Your task to perform on an android device: turn on javascript in the chrome app Image 0: 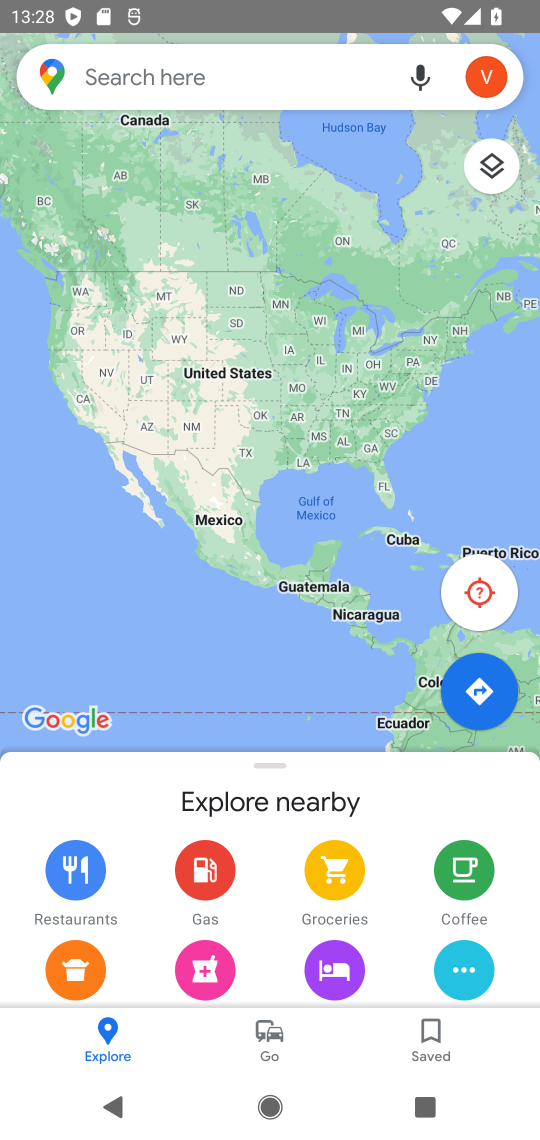
Step 0: press home button
Your task to perform on an android device: turn on javascript in the chrome app Image 1: 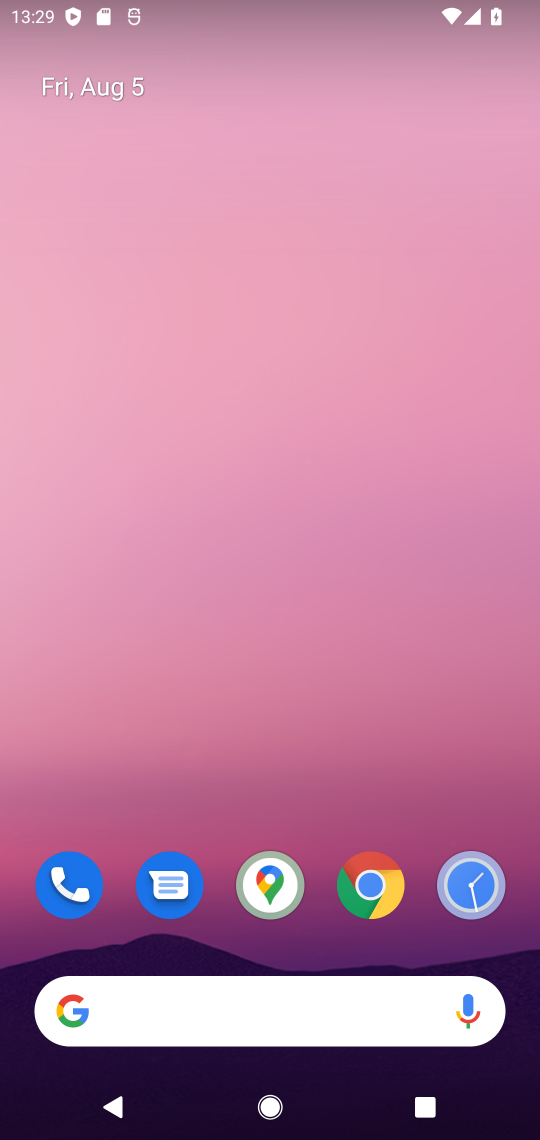
Step 1: click (366, 876)
Your task to perform on an android device: turn on javascript in the chrome app Image 2: 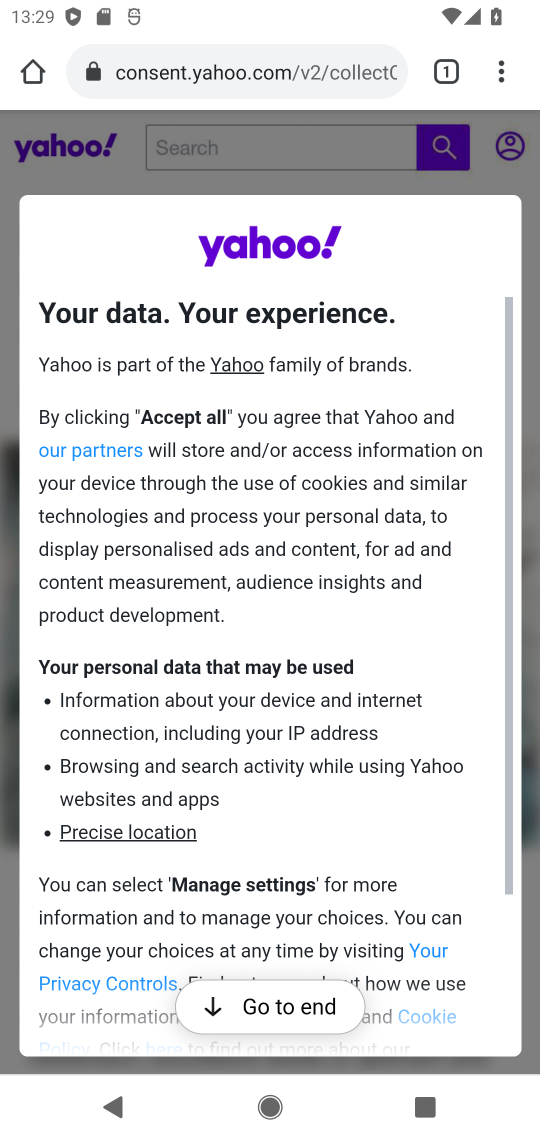
Step 2: click (502, 66)
Your task to perform on an android device: turn on javascript in the chrome app Image 3: 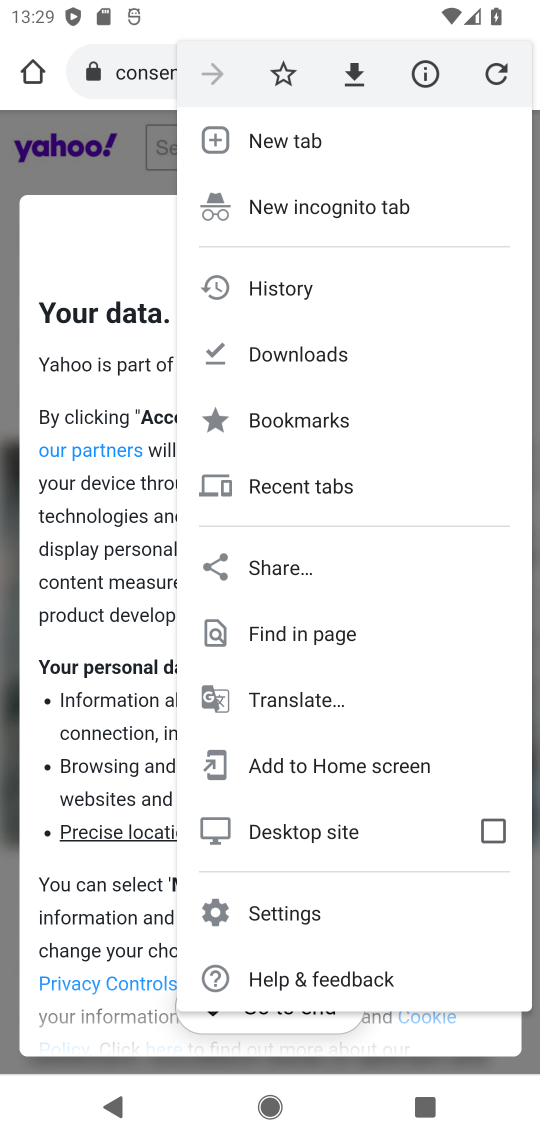
Step 3: click (278, 911)
Your task to perform on an android device: turn on javascript in the chrome app Image 4: 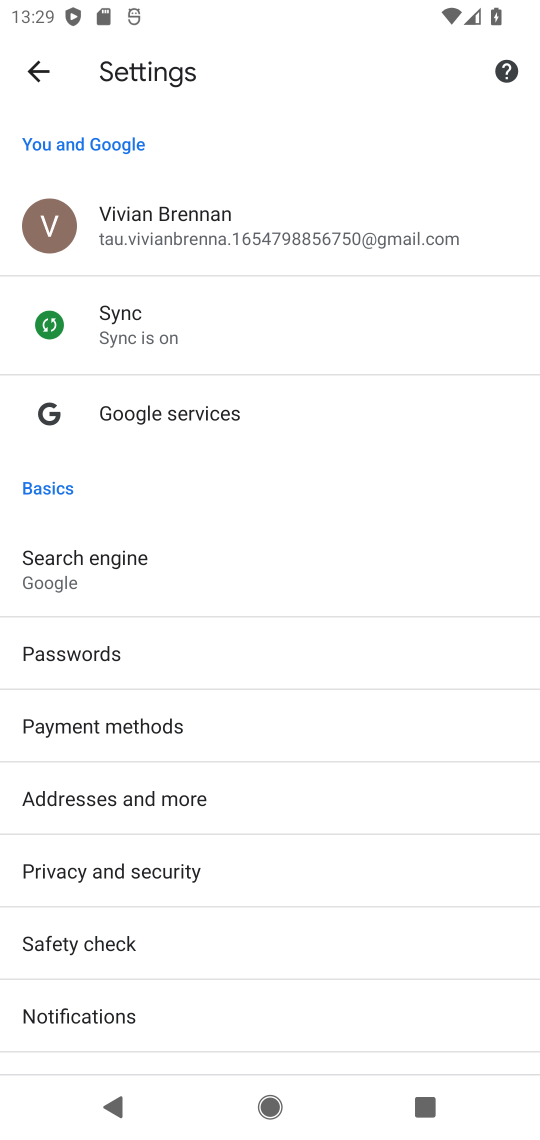
Step 4: click (149, 495)
Your task to perform on an android device: turn on javascript in the chrome app Image 5: 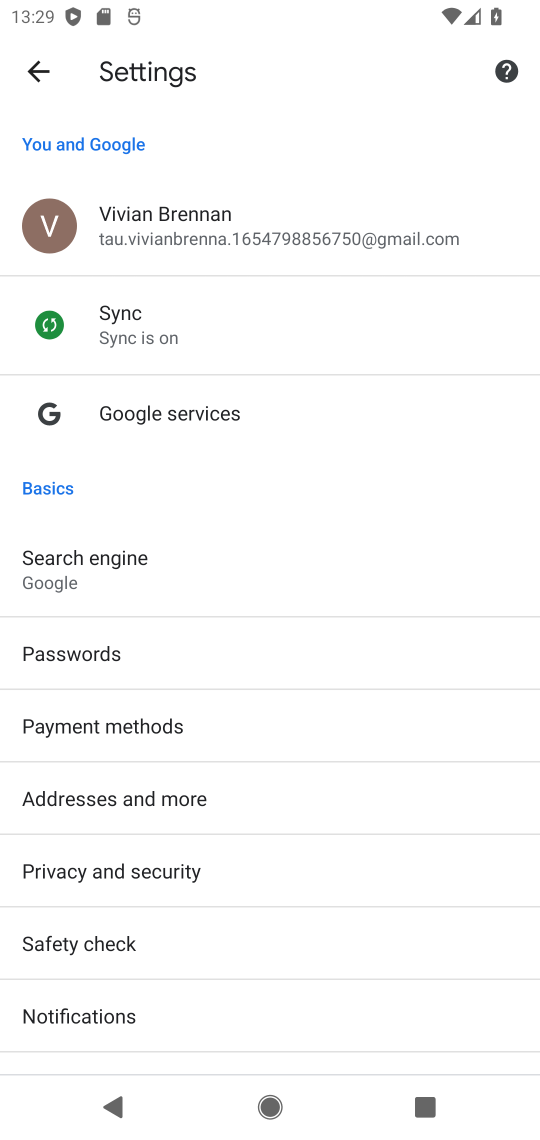
Step 5: drag from (204, 1016) to (204, 376)
Your task to perform on an android device: turn on javascript in the chrome app Image 6: 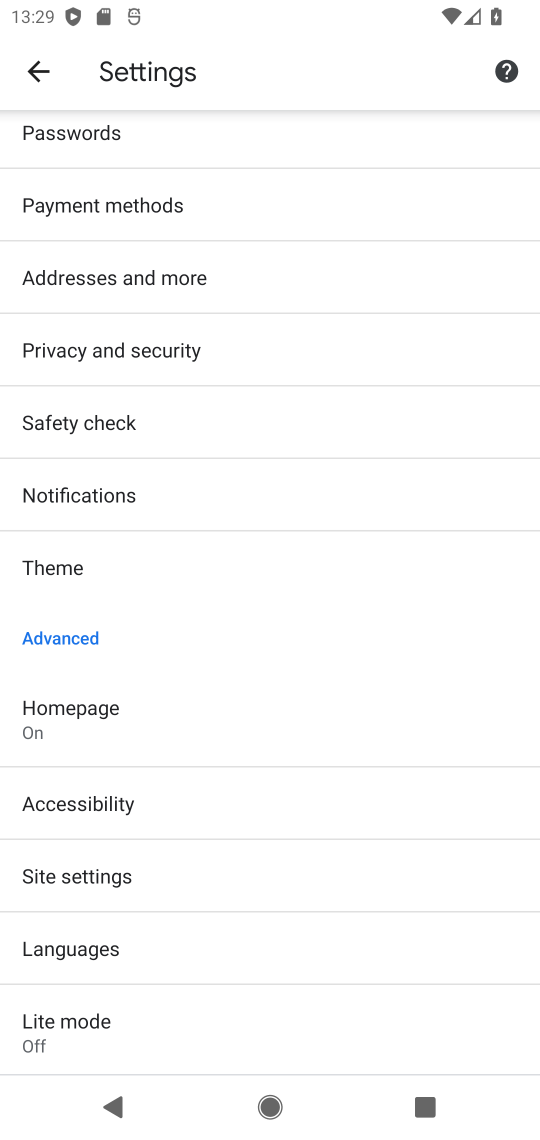
Step 6: click (105, 876)
Your task to perform on an android device: turn on javascript in the chrome app Image 7: 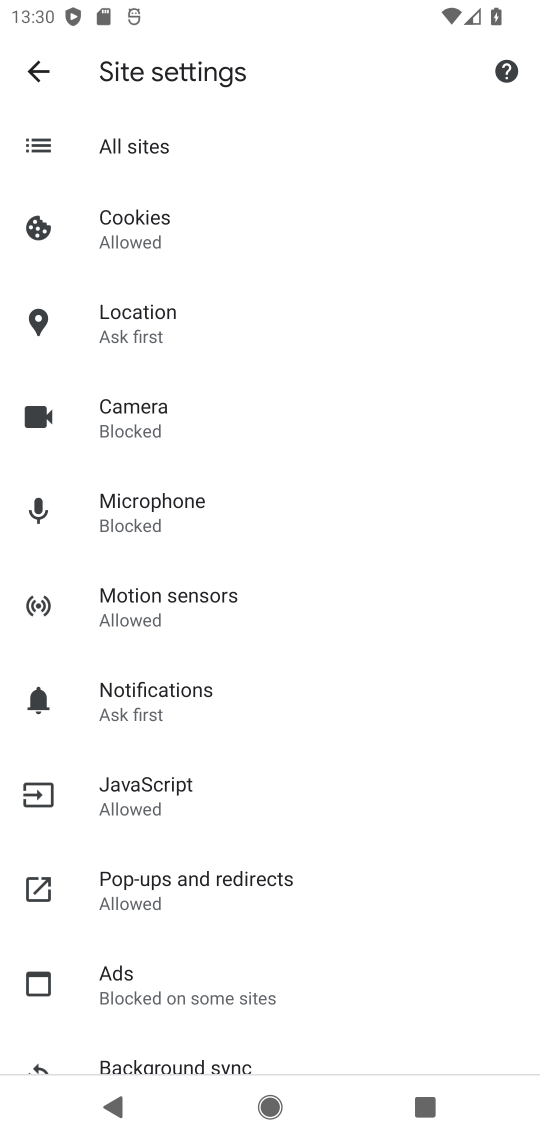
Step 7: click (164, 788)
Your task to perform on an android device: turn on javascript in the chrome app Image 8: 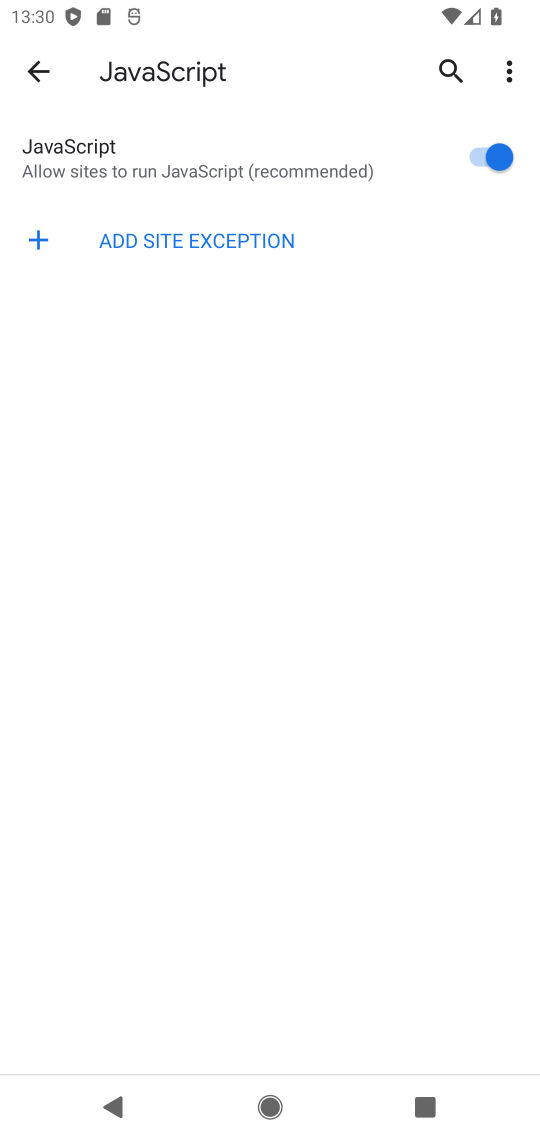
Step 8: task complete